Your task to perform on an android device: turn on priority inbox in the gmail app Image 0: 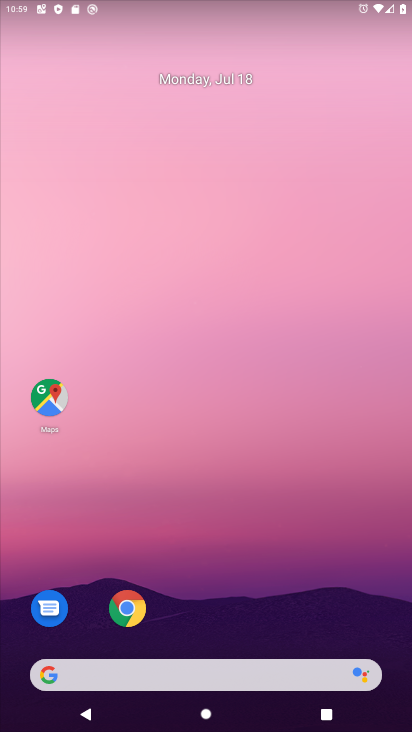
Step 0: drag from (227, 569) to (293, 38)
Your task to perform on an android device: turn on priority inbox in the gmail app Image 1: 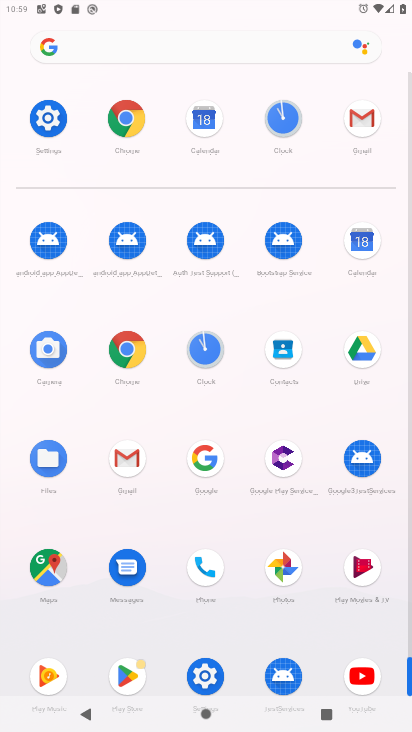
Step 1: click (130, 472)
Your task to perform on an android device: turn on priority inbox in the gmail app Image 2: 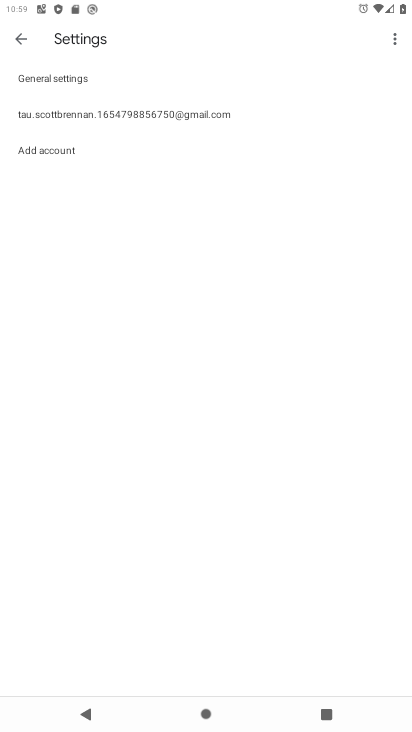
Step 2: click (80, 113)
Your task to perform on an android device: turn on priority inbox in the gmail app Image 3: 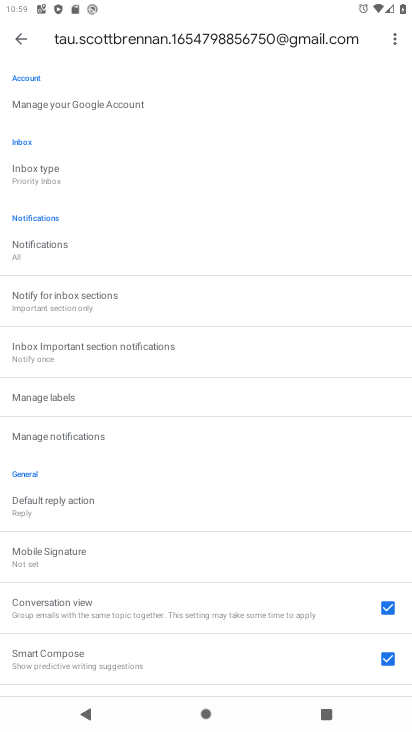
Step 3: task complete